Your task to perform on an android device: install app "WhatsApp Messenger" Image 0: 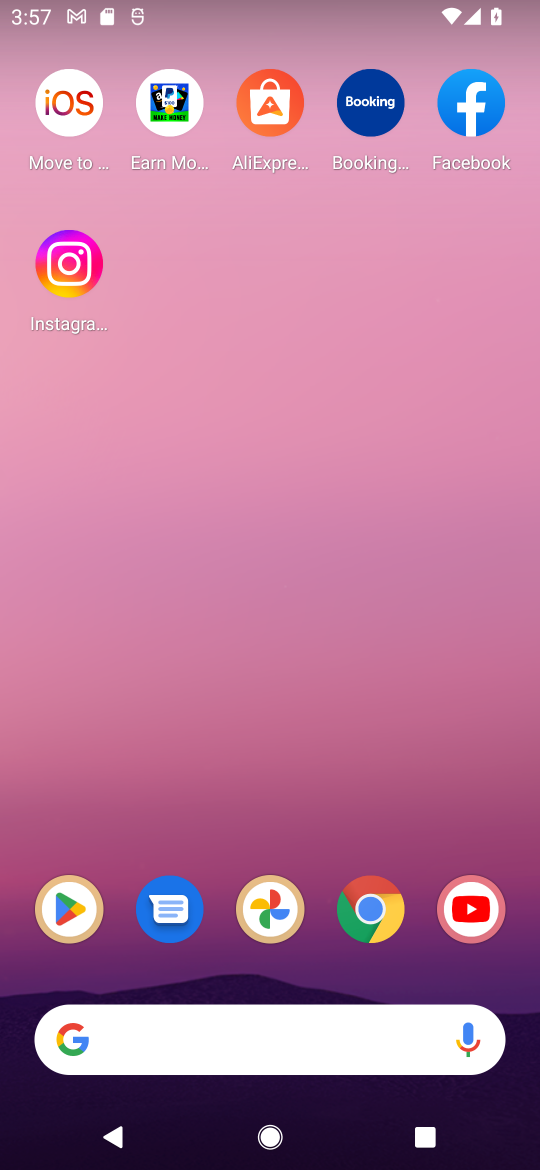
Step 0: click (69, 917)
Your task to perform on an android device: install app "WhatsApp Messenger" Image 1: 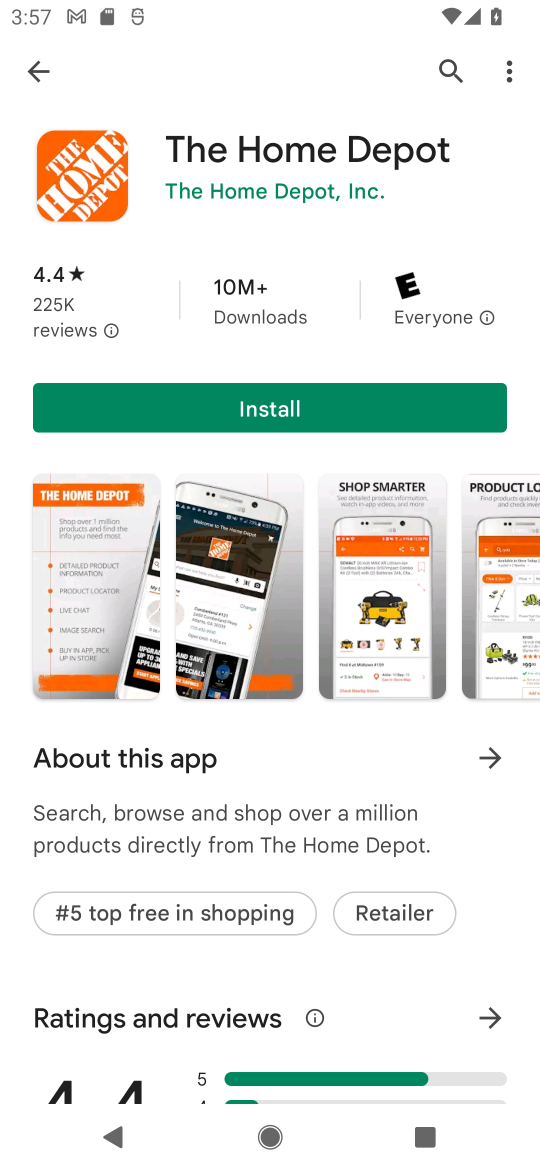
Step 1: click (41, 71)
Your task to perform on an android device: install app "WhatsApp Messenger" Image 2: 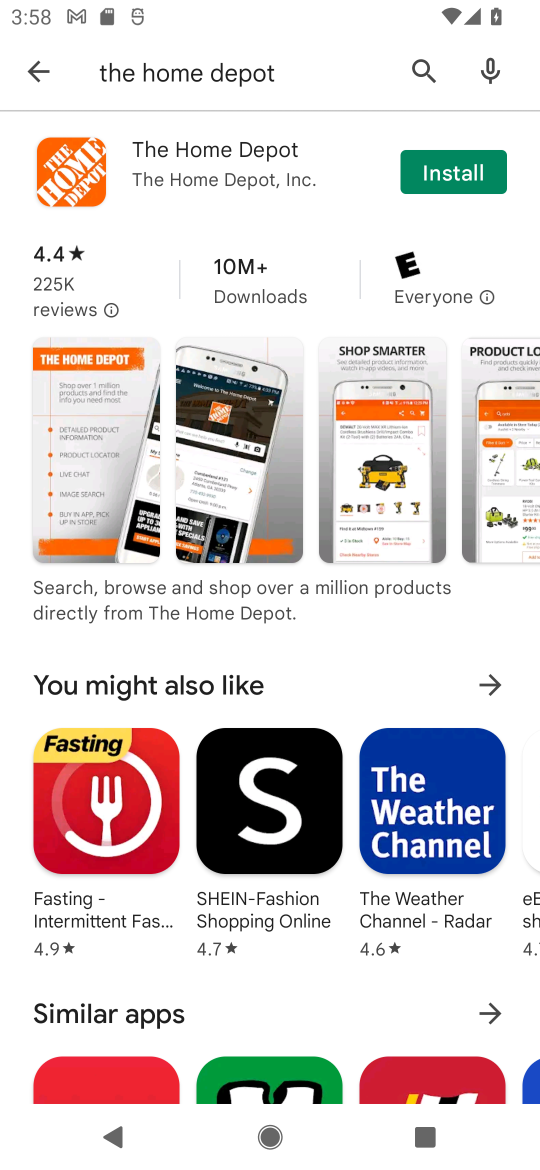
Step 2: click (163, 68)
Your task to perform on an android device: install app "WhatsApp Messenger" Image 3: 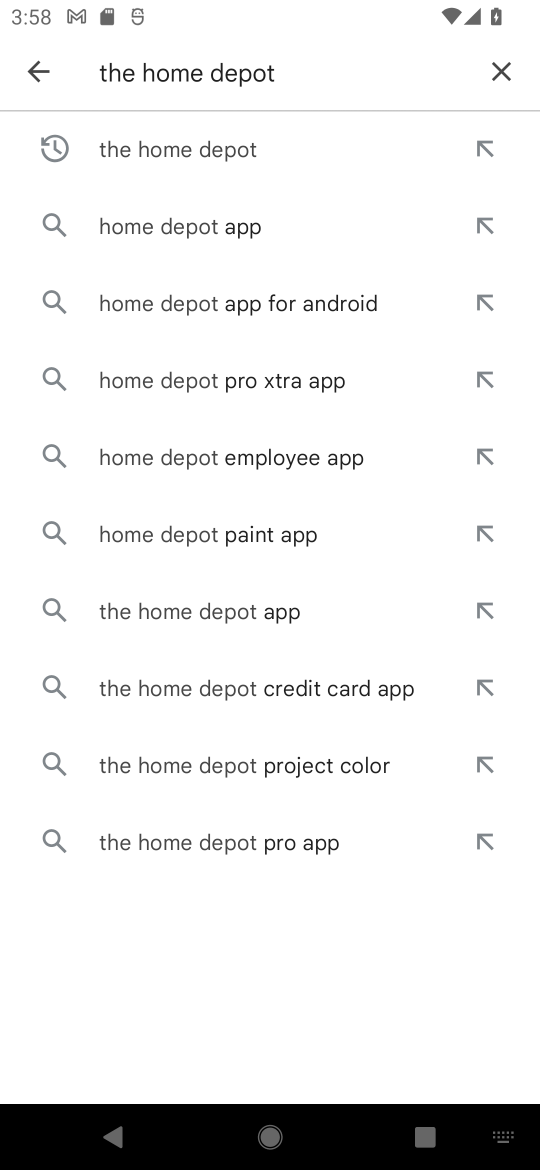
Step 3: click (517, 62)
Your task to perform on an android device: install app "WhatsApp Messenger" Image 4: 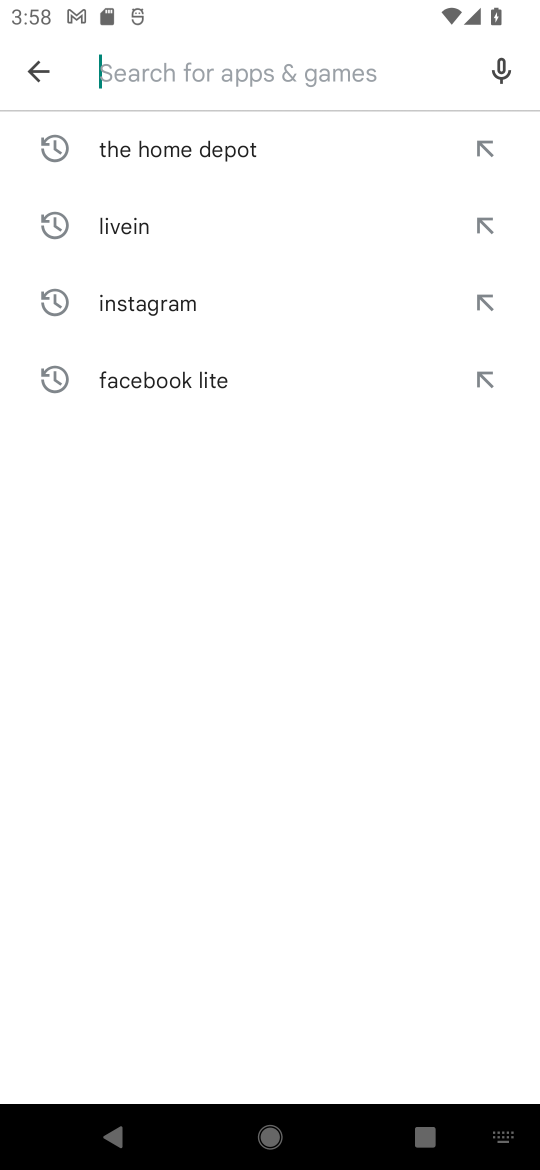
Step 4: type "whatsapp Messenger"
Your task to perform on an android device: install app "WhatsApp Messenger" Image 5: 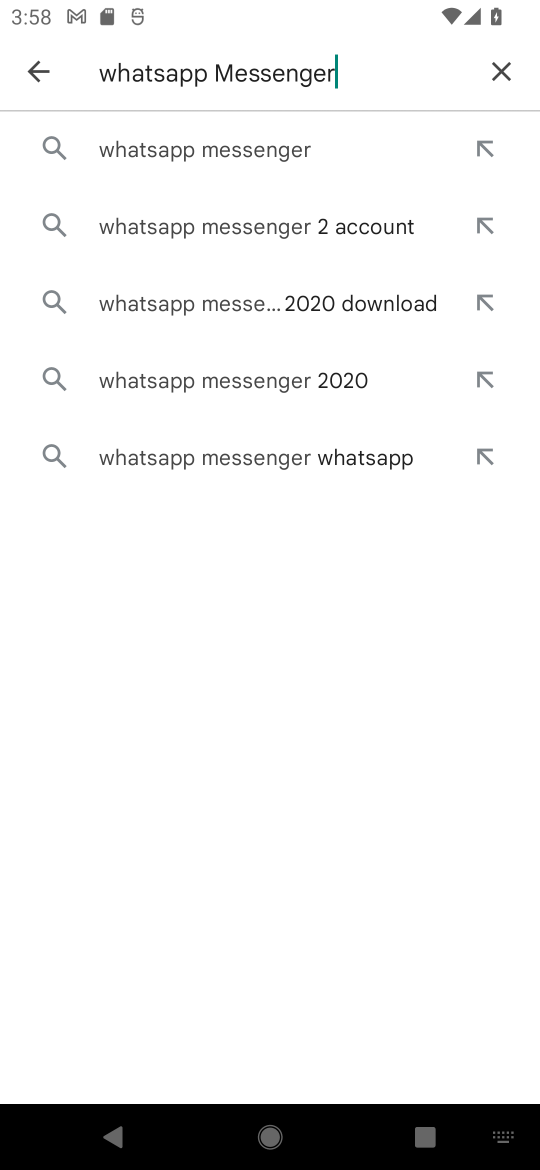
Step 5: click (269, 141)
Your task to perform on an android device: install app "WhatsApp Messenger" Image 6: 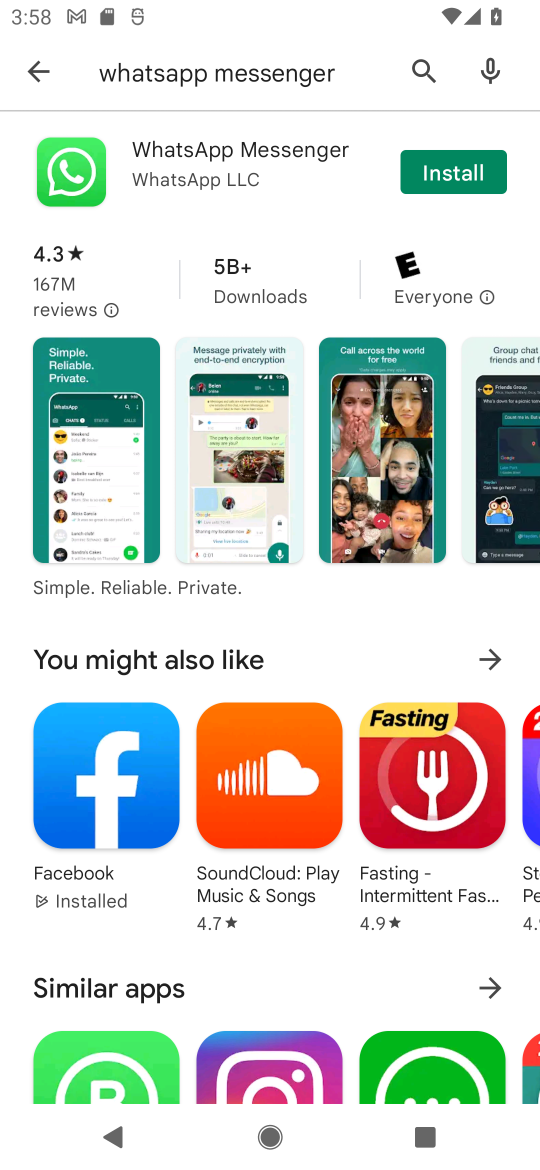
Step 6: click (443, 177)
Your task to perform on an android device: install app "WhatsApp Messenger" Image 7: 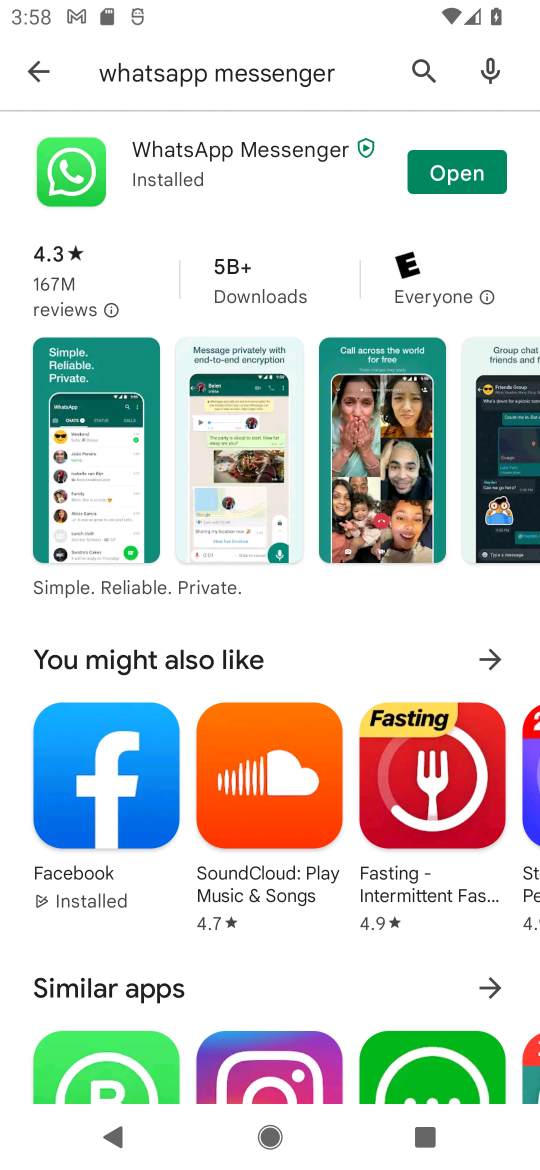
Step 7: task complete